Your task to perform on an android device: open app "Microsoft Authenticator" (install if not already installed) Image 0: 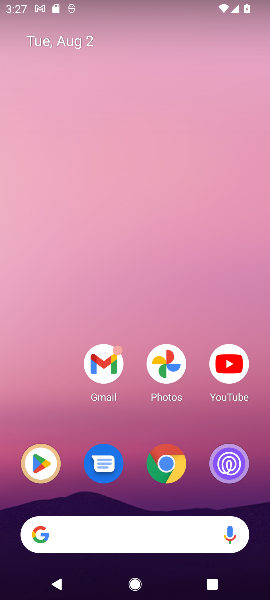
Step 0: press home button
Your task to perform on an android device: open app "Microsoft Authenticator" (install if not already installed) Image 1: 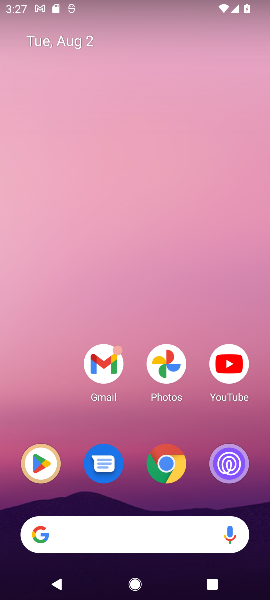
Step 1: click (35, 453)
Your task to perform on an android device: open app "Microsoft Authenticator" (install if not already installed) Image 2: 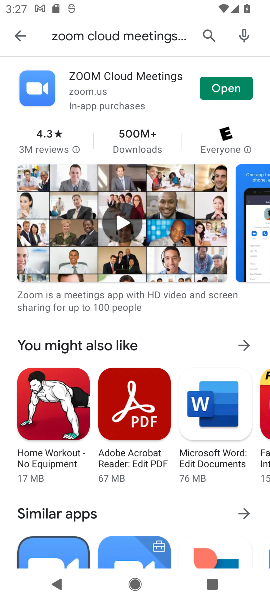
Step 2: click (208, 33)
Your task to perform on an android device: open app "Microsoft Authenticator" (install if not already installed) Image 3: 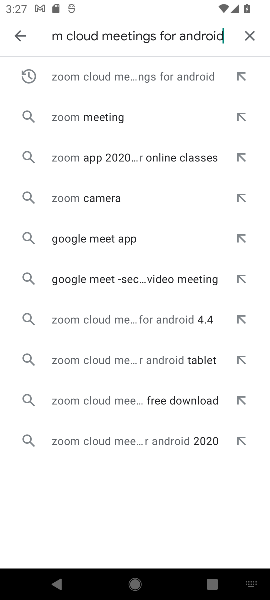
Step 3: click (247, 31)
Your task to perform on an android device: open app "Microsoft Authenticator" (install if not already installed) Image 4: 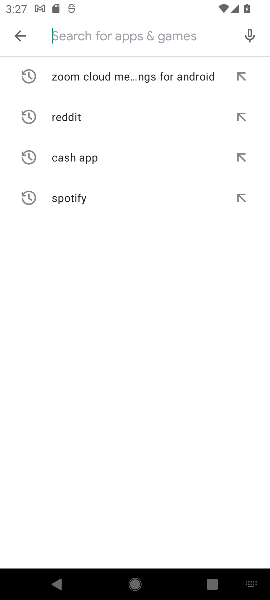
Step 4: type "Microsoft Authenticator"
Your task to perform on an android device: open app "Microsoft Authenticator" (install if not already installed) Image 5: 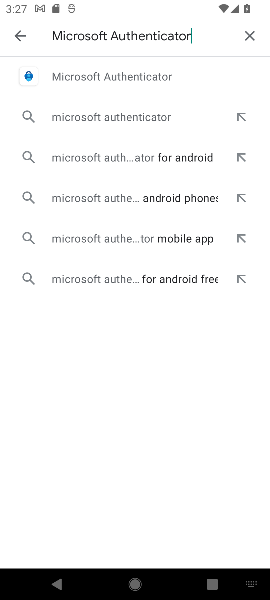
Step 5: click (113, 82)
Your task to perform on an android device: open app "Microsoft Authenticator" (install if not already installed) Image 6: 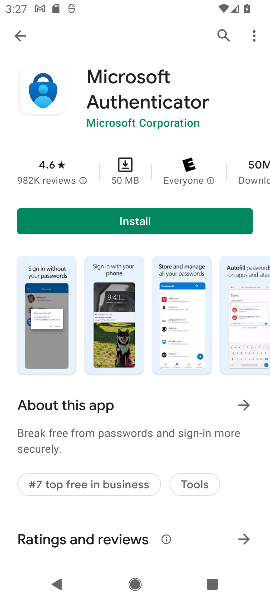
Step 6: click (139, 224)
Your task to perform on an android device: open app "Microsoft Authenticator" (install if not already installed) Image 7: 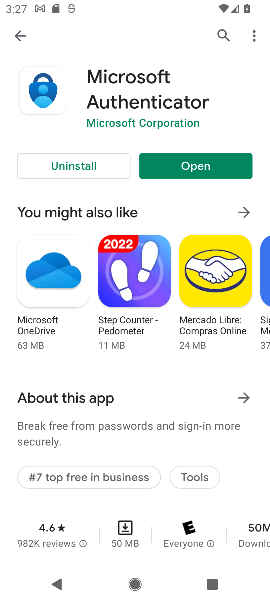
Step 7: click (185, 167)
Your task to perform on an android device: open app "Microsoft Authenticator" (install if not already installed) Image 8: 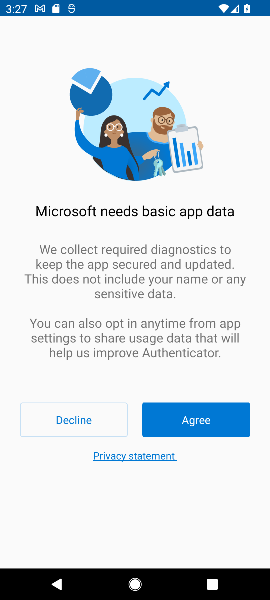
Step 8: task complete